Your task to perform on an android device: Go to internet settings Image 0: 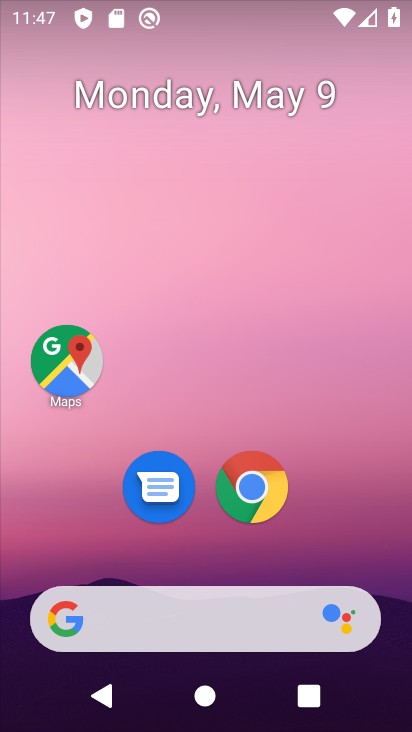
Step 0: drag from (373, 528) to (323, 87)
Your task to perform on an android device: Go to internet settings Image 1: 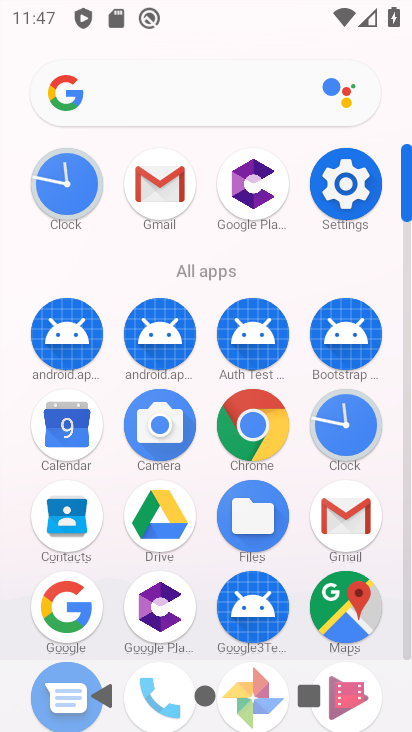
Step 1: click (336, 178)
Your task to perform on an android device: Go to internet settings Image 2: 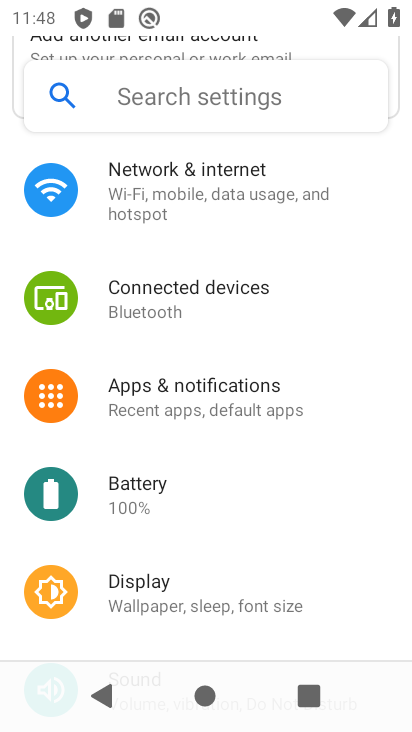
Step 2: click (227, 186)
Your task to perform on an android device: Go to internet settings Image 3: 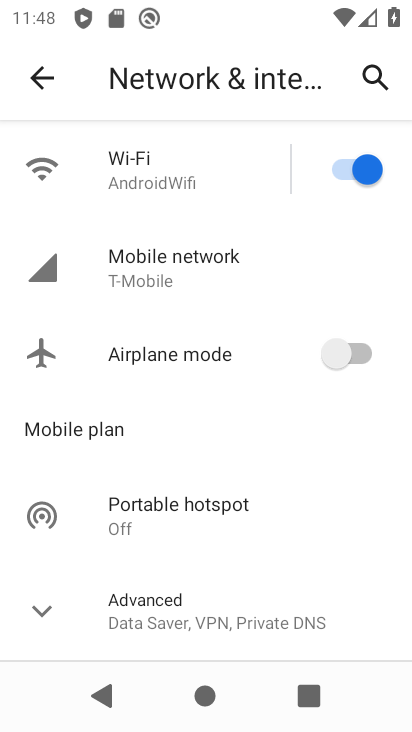
Step 3: task complete